Your task to perform on an android device: Go to ESPN.com Image 0: 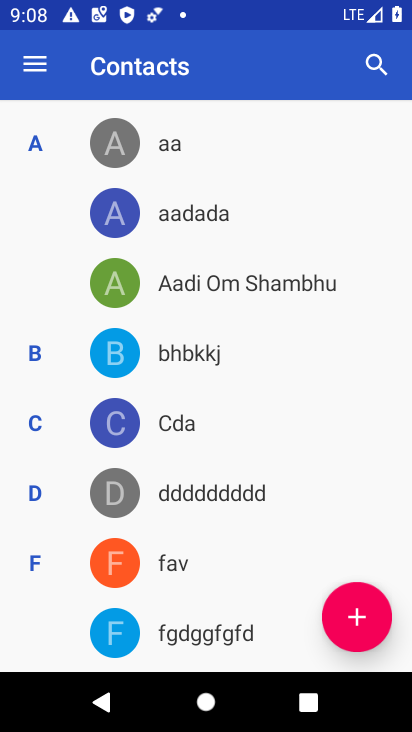
Step 0: press home button
Your task to perform on an android device: Go to ESPN.com Image 1: 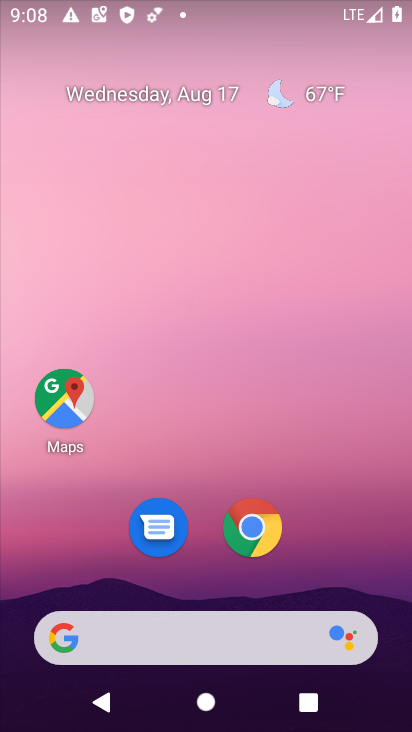
Step 1: click (225, 639)
Your task to perform on an android device: Go to ESPN.com Image 2: 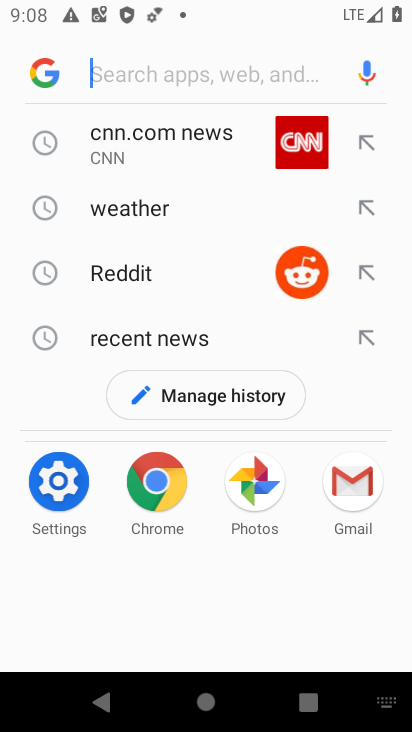
Step 2: type "espn"
Your task to perform on an android device: Go to ESPN.com Image 3: 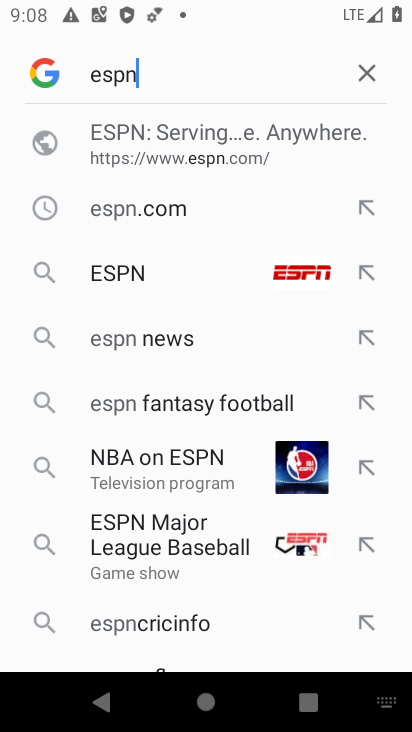
Step 3: click (100, 261)
Your task to perform on an android device: Go to ESPN.com Image 4: 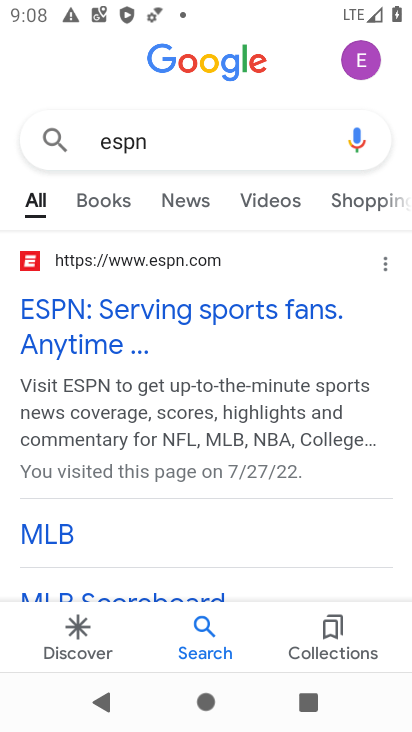
Step 4: click (94, 298)
Your task to perform on an android device: Go to ESPN.com Image 5: 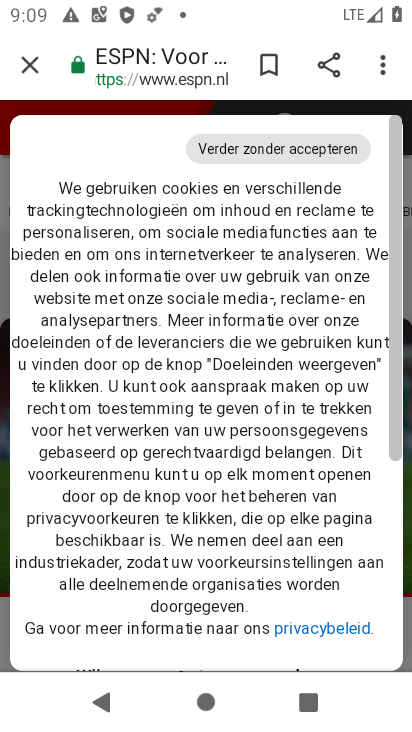
Step 5: task complete